Your task to perform on an android device: Show the shopping cart on target.com. Add jbl flip 4 to the cart on target.com Image 0: 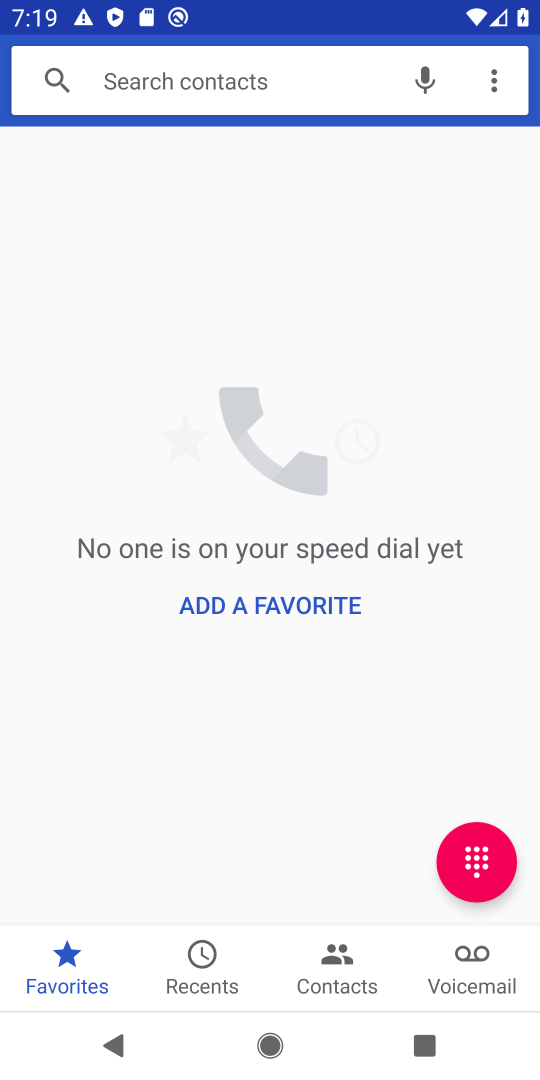
Step 0: press home button
Your task to perform on an android device: Show the shopping cart on target.com. Add jbl flip 4 to the cart on target.com Image 1: 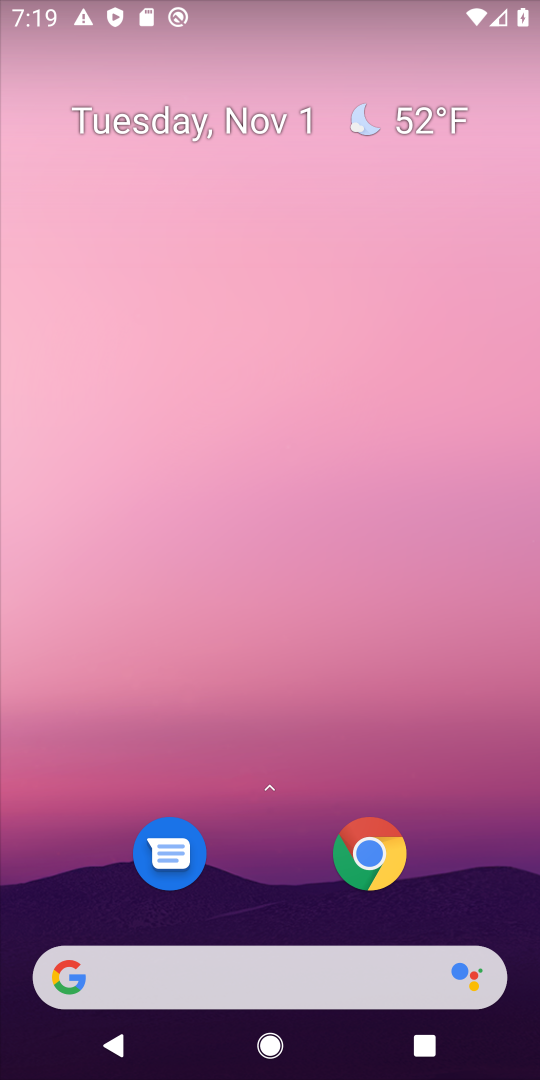
Step 1: click (284, 979)
Your task to perform on an android device: Show the shopping cart on target.com. Add jbl flip 4 to the cart on target.com Image 2: 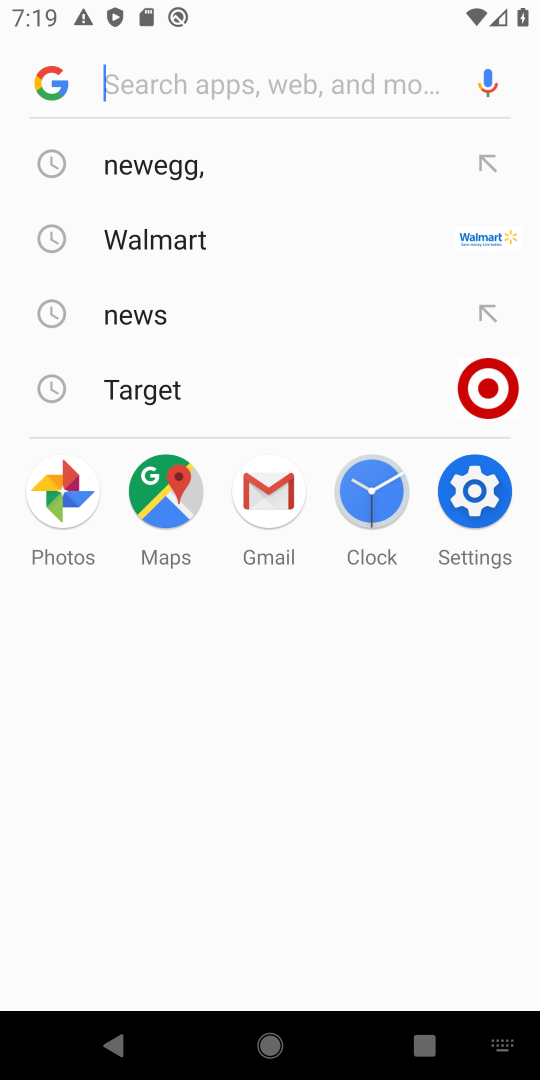
Step 2: type "target"
Your task to perform on an android device: Show the shopping cart on target.com. Add jbl flip 4 to the cart on target.com Image 3: 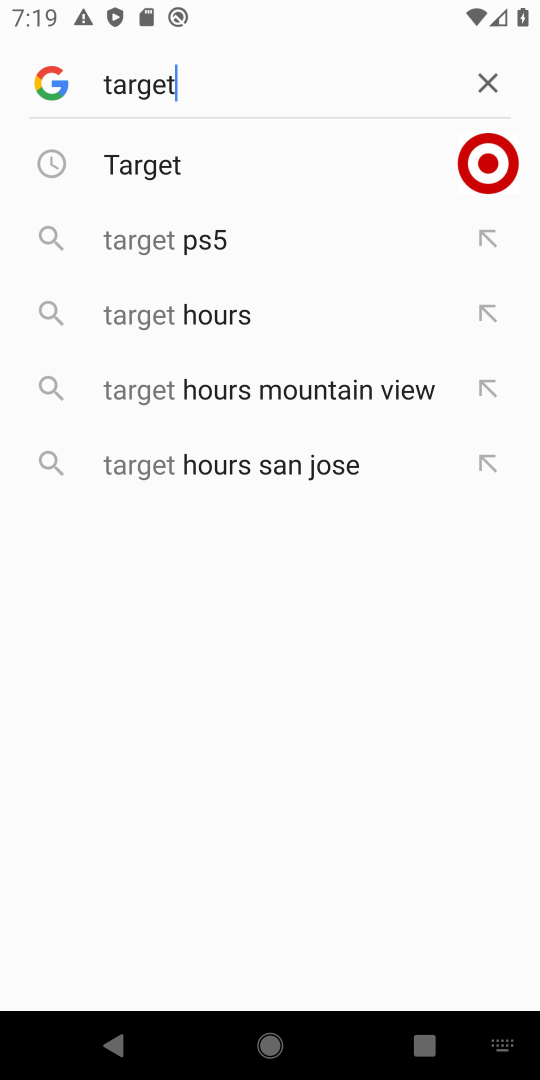
Step 3: click (147, 149)
Your task to perform on an android device: Show the shopping cart on target.com. Add jbl flip 4 to the cart on target.com Image 4: 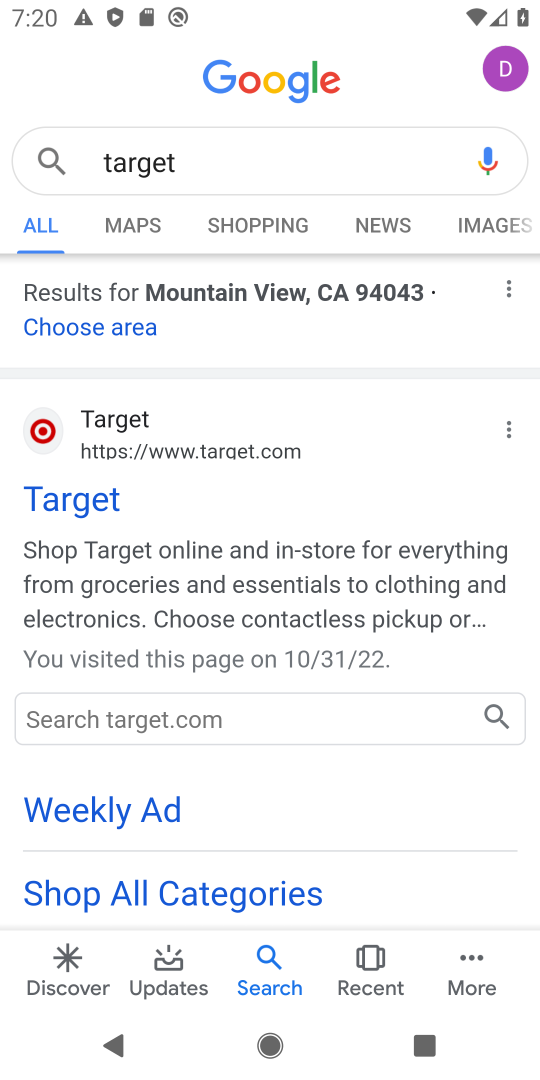
Step 4: click (51, 497)
Your task to perform on an android device: Show the shopping cart on target.com. Add jbl flip 4 to the cart on target.com Image 5: 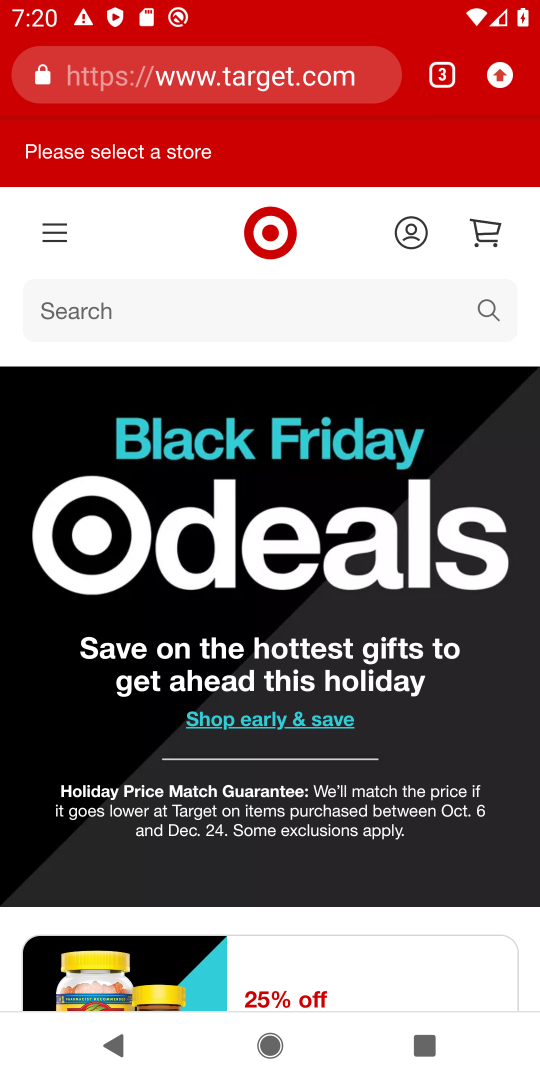
Step 5: click (214, 323)
Your task to perform on an android device: Show the shopping cart on target.com. Add jbl flip 4 to the cart on target.com Image 6: 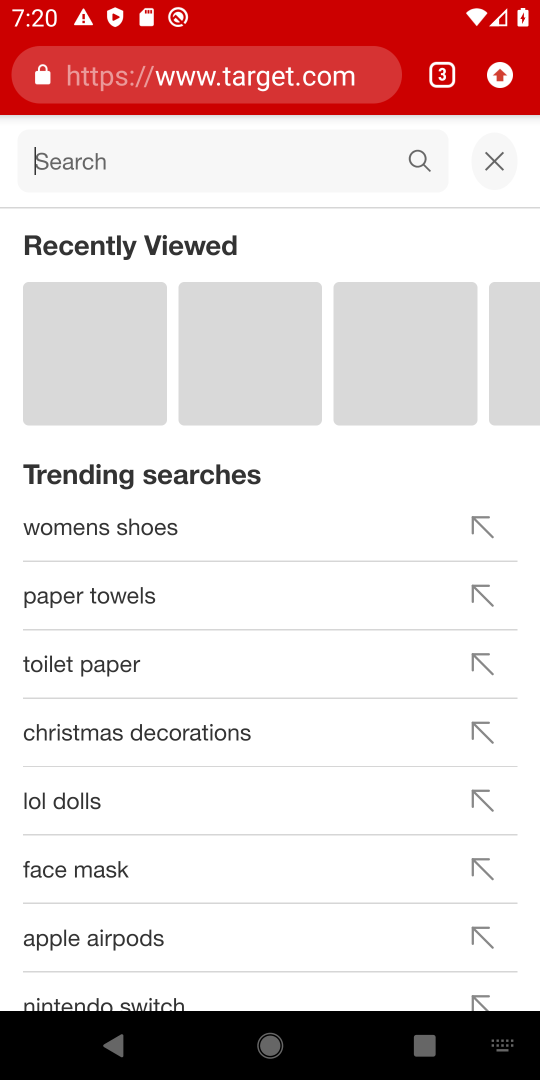
Step 6: type "jbl flip 4"
Your task to perform on an android device: Show the shopping cart on target.com. Add jbl flip 4 to the cart on target.com Image 7: 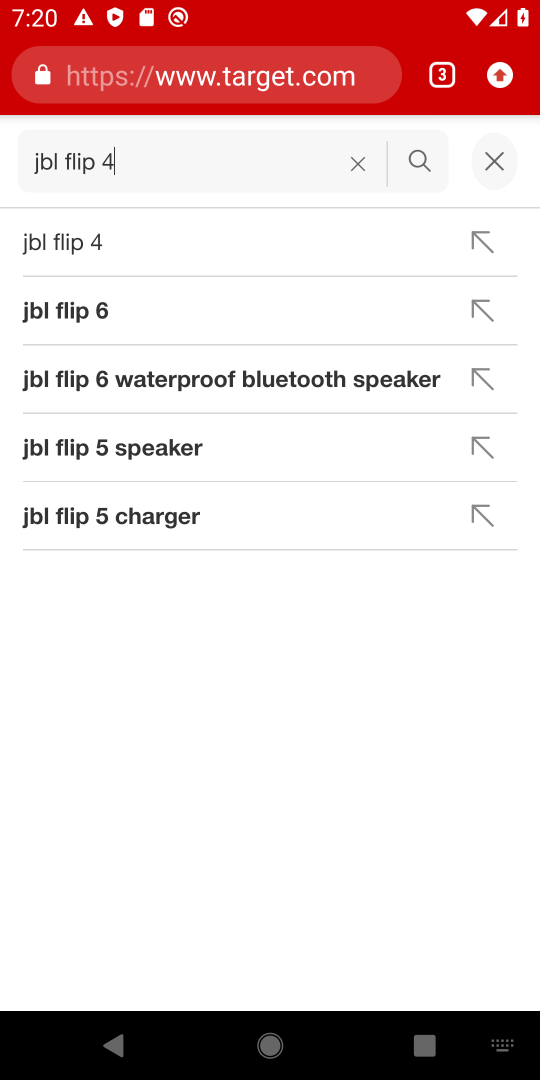
Step 7: click (65, 233)
Your task to perform on an android device: Show the shopping cart on target.com. Add jbl flip 4 to the cart on target.com Image 8: 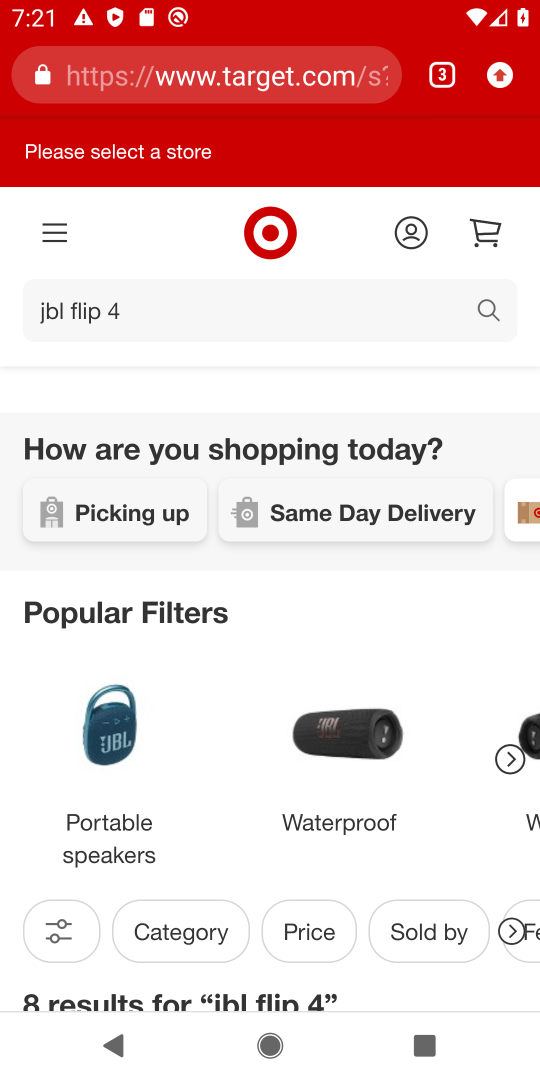
Step 8: drag from (265, 782) to (228, 272)
Your task to perform on an android device: Show the shopping cart on target.com. Add jbl flip 4 to the cart on target.com Image 9: 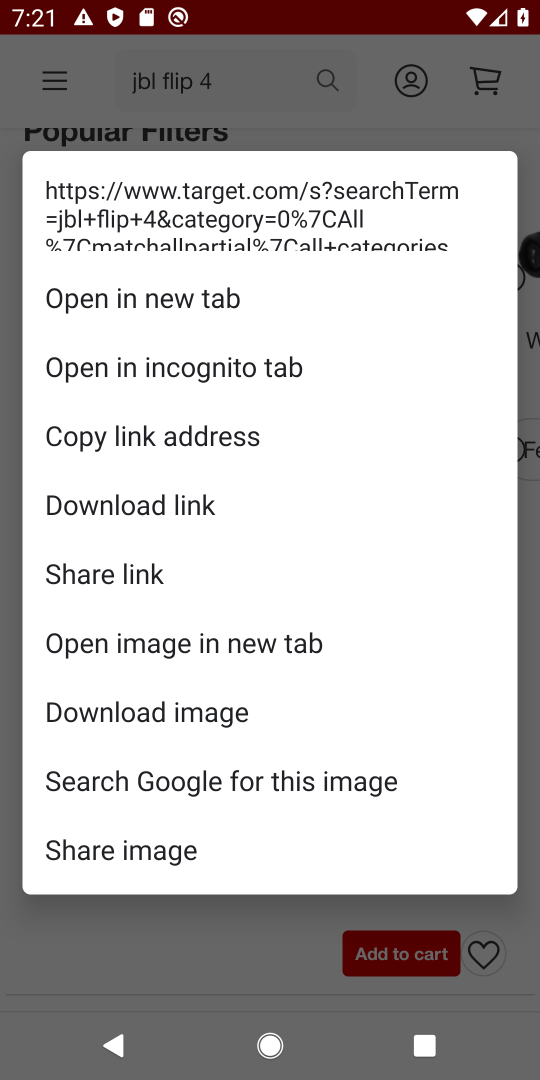
Step 9: click (156, 958)
Your task to perform on an android device: Show the shopping cart on target.com. Add jbl flip 4 to the cart on target.com Image 10: 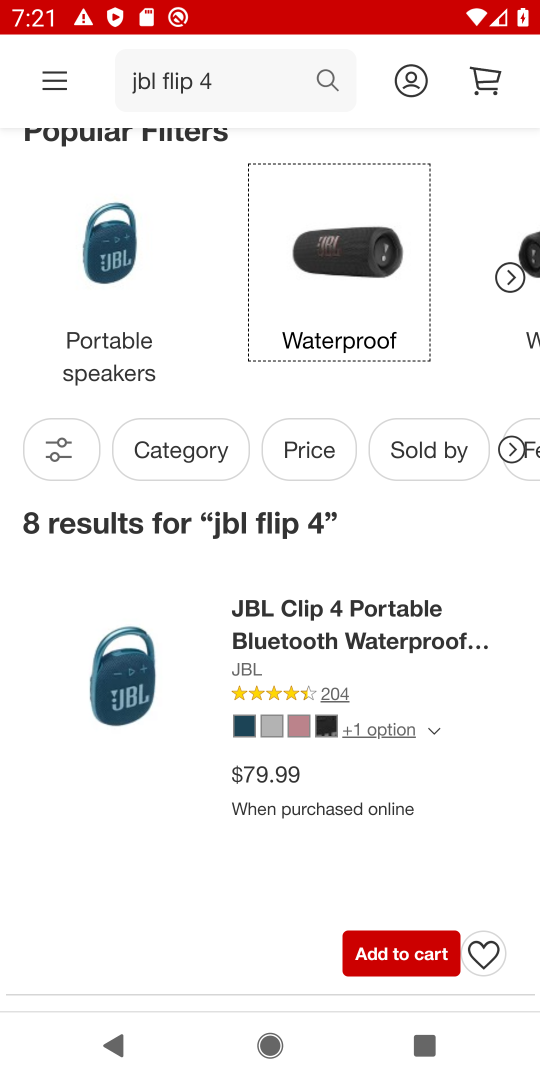
Step 10: click (388, 948)
Your task to perform on an android device: Show the shopping cart on target.com. Add jbl flip 4 to the cart on target.com Image 11: 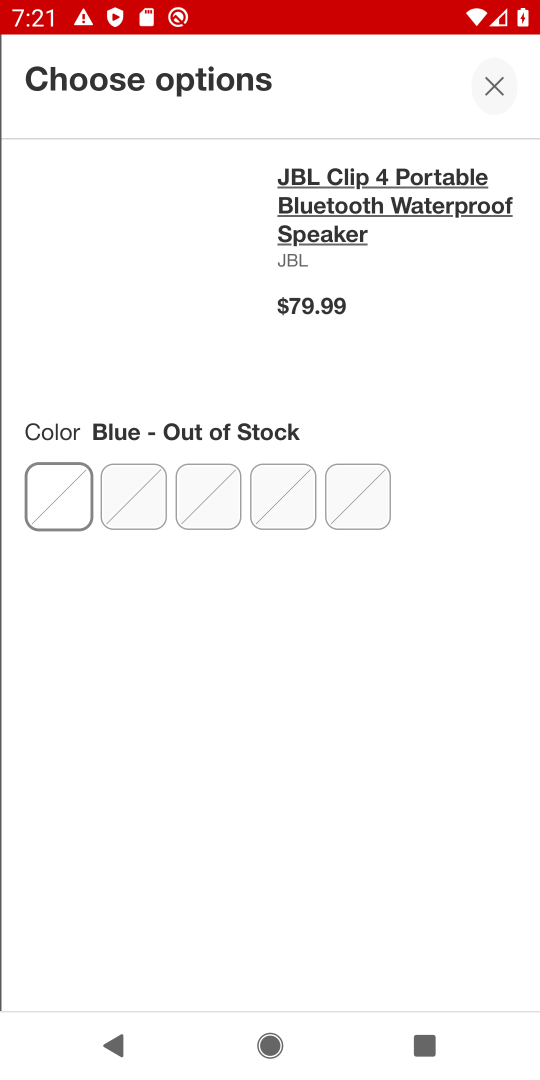
Step 11: task complete